Your task to perform on an android device: turn on priority inbox in the gmail app Image 0: 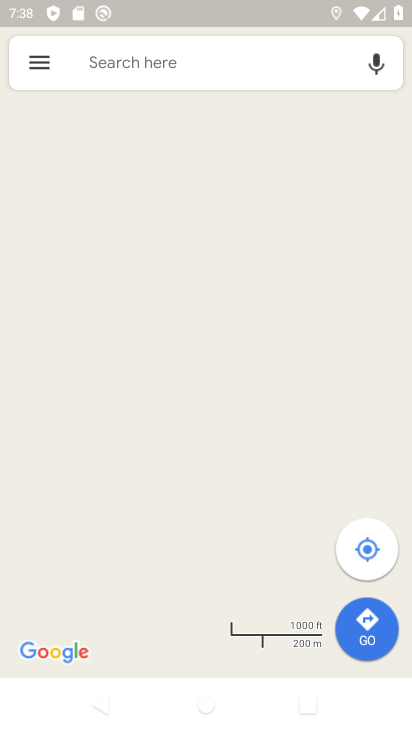
Step 0: press home button
Your task to perform on an android device: turn on priority inbox in the gmail app Image 1: 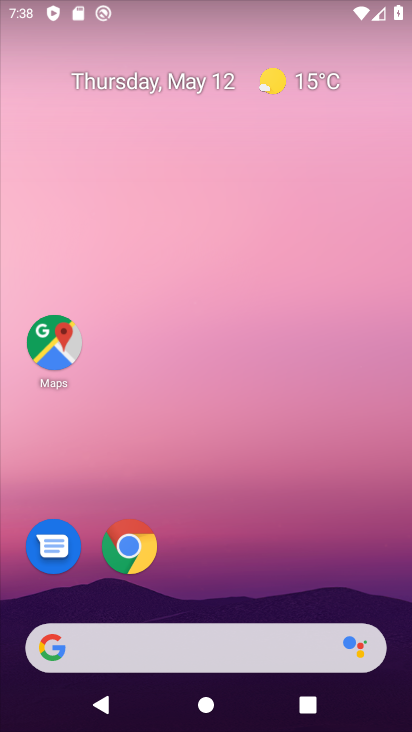
Step 1: drag from (248, 643) to (410, 150)
Your task to perform on an android device: turn on priority inbox in the gmail app Image 2: 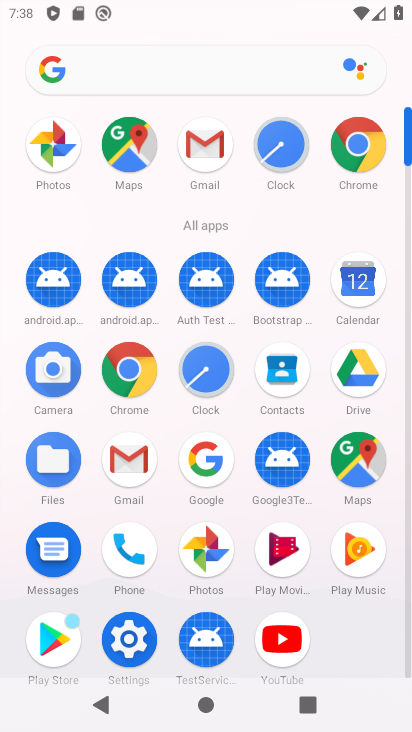
Step 2: click (363, 160)
Your task to perform on an android device: turn on priority inbox in the gmail app Image 3: 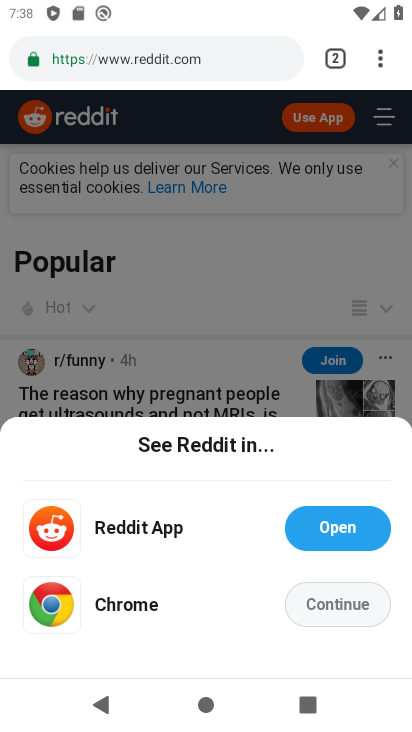
Step 3: click (379, 71)
Your task to perform on an android device: turn on priority inbox in the gmail app Image 4: 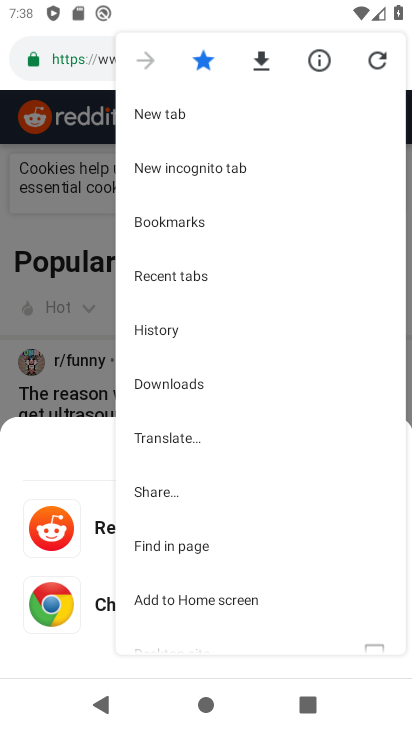
Step 4: click (193, 223)
Your task to perform on an android device: turn on priority inbox in the gmail app Image 5: 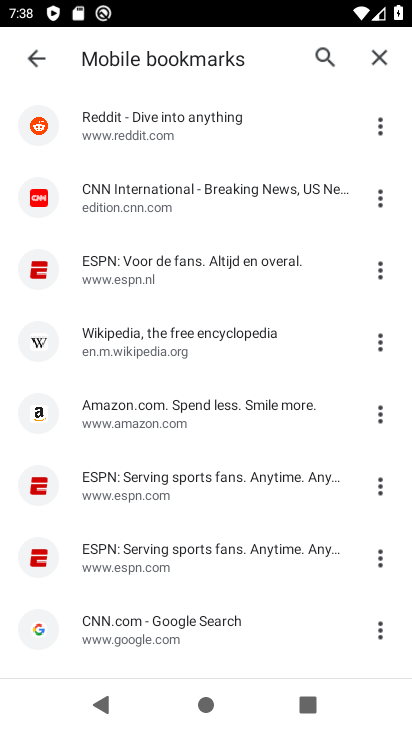
Step 5: task complete